Your task to perform on an android device: see tabs open on other devices in the chrome app Image 0: 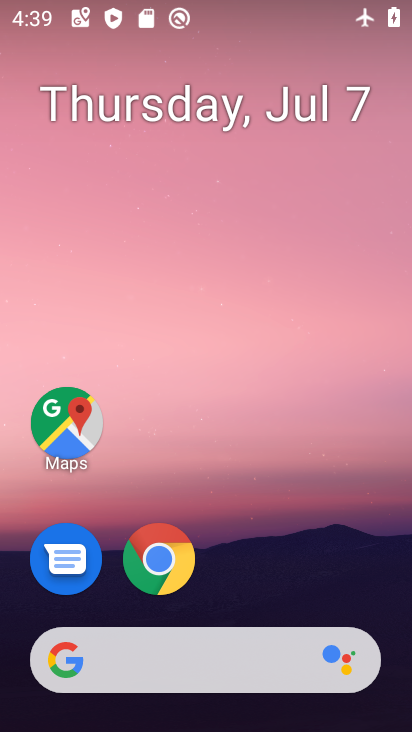
Step 0: click (168, 583)
Your task to perform on an android device: see tabs open on other devices in the chrome app Image 1: 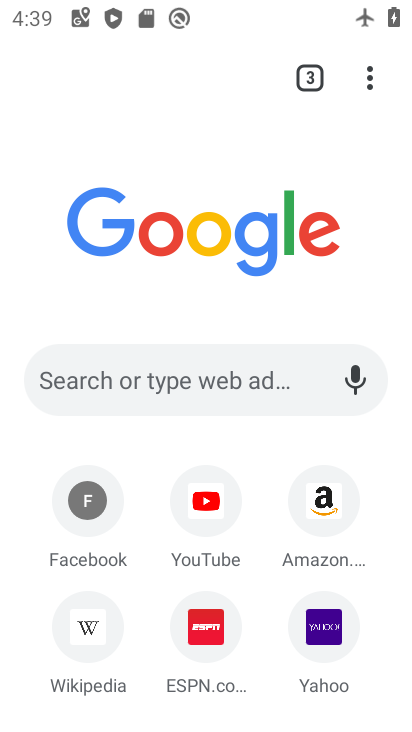
Step 1: task complete